Your task to perform on an android device: toggle location history Image 0: 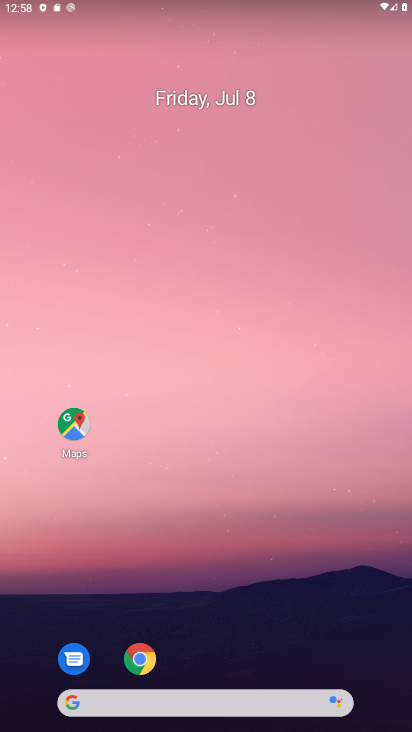
Step 0: drag from (262, 684) to (257, 156)
Your task to perform on an android device: toggle location history Image 1: 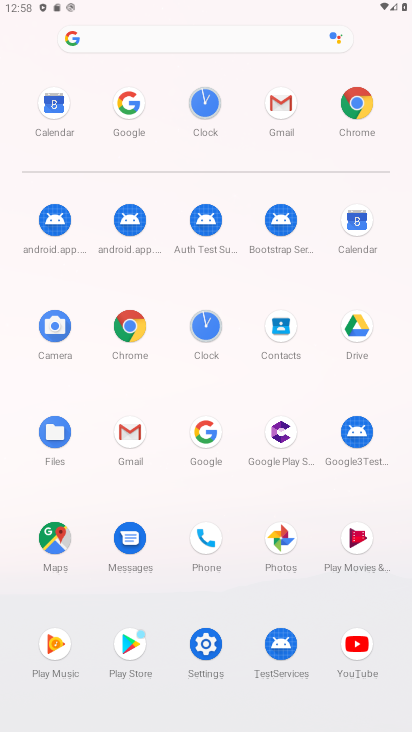
Step 1: click (211, 642)
Your task to perform on an android device: toggle location history Image 2: 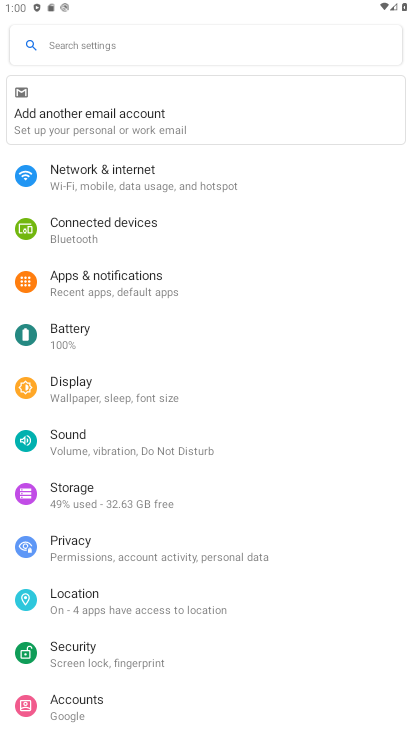
Step 2: drag from (199, 668) to (232, 614)
Your task to perform on an android device: toggle location history Image 3: 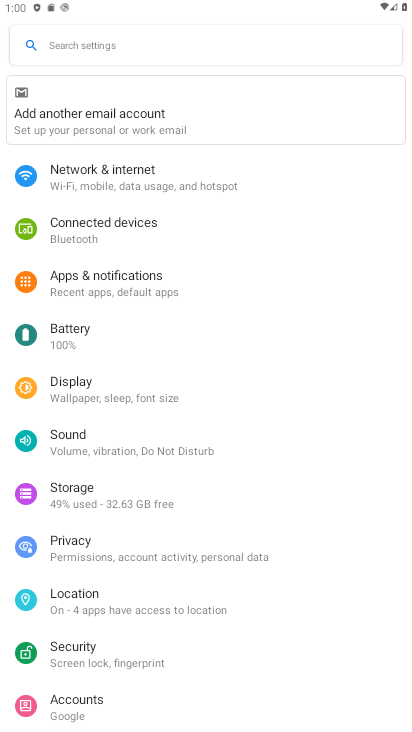
Step 3: click (122, 606)
Your task to perform on an android device: toggle location history Image 4: 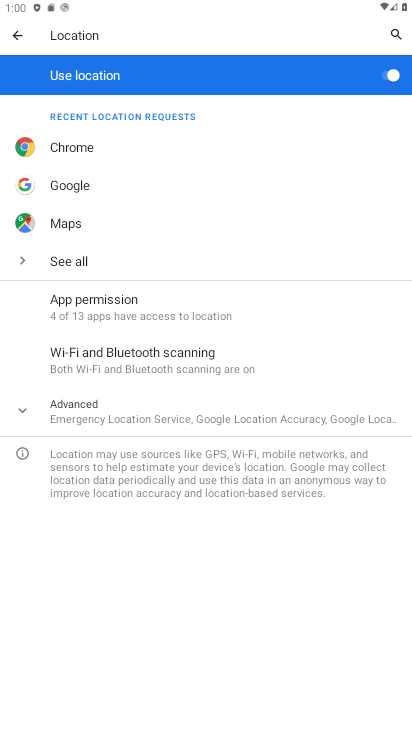
Step 4: click (111, 400)
Your task to perform on an android device: toggle location history Image 5: 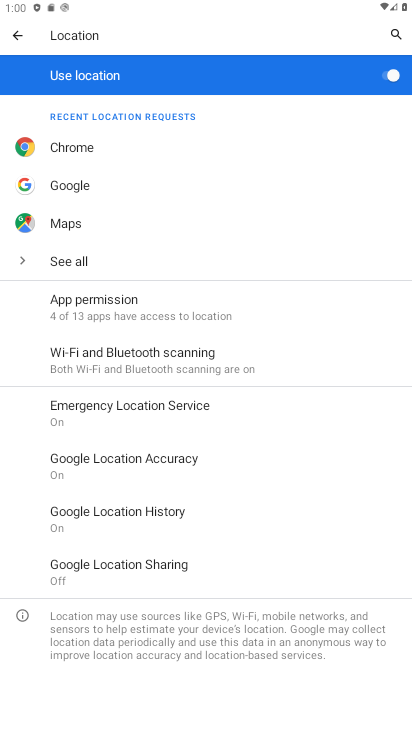
Step 5: drag from (107, 445) to (109, 287)
Your task to perform on an android device: toggle location history Image 6: 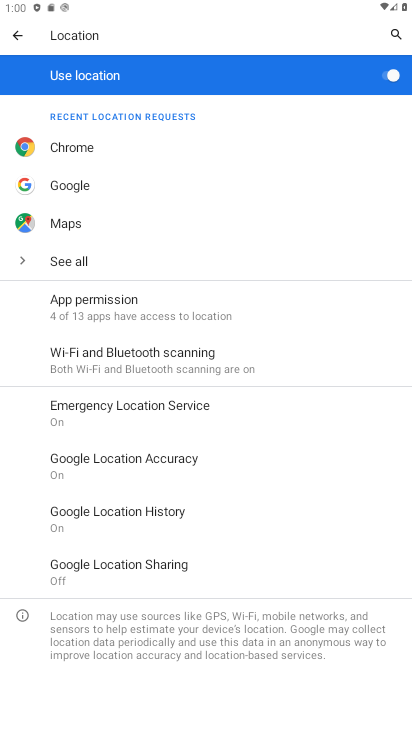
Step 6: click (138, 520)
Your task to perform on an android device: toggle location history Image 7: 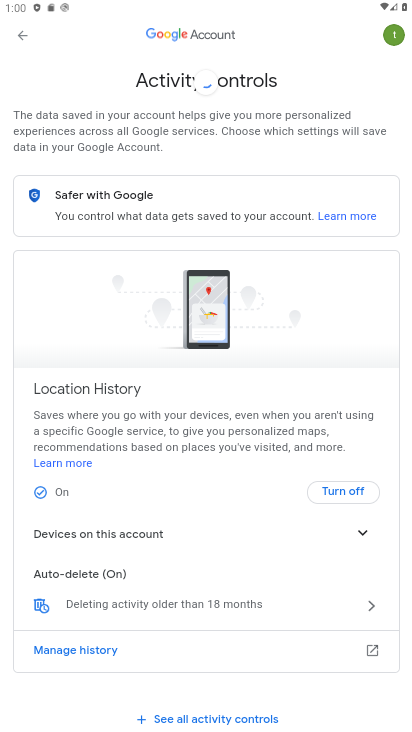
Step 7: click (324, 487)
Your task to perform on an android device: toggle location history Image 8: 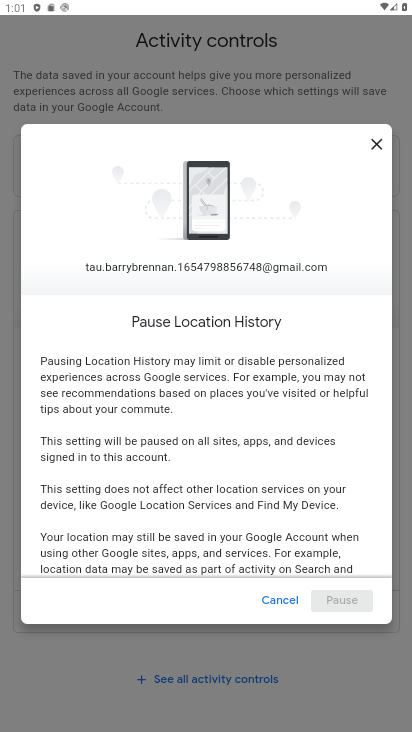
Step 8: drag from (256, 490) to (306, 40)
Your task to perform on an android device: toggle location history Image 9: 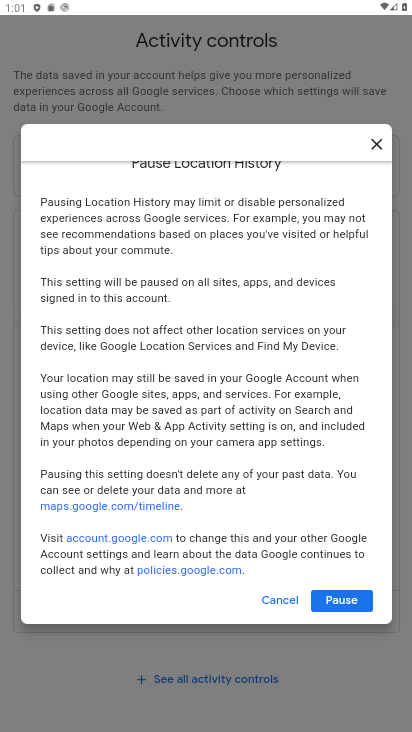
Step 9: click (340, 596)
Your task to perform on an android device: toggle location history Image 10: 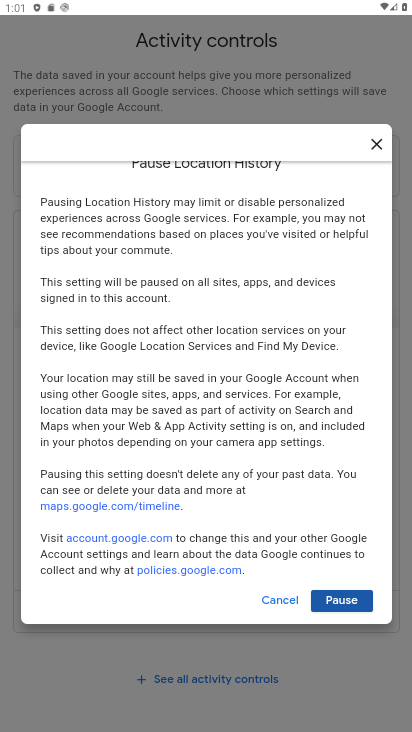
Step 10: click (336, 597)
Your task to perform on an android device: toggle location history Image 11: 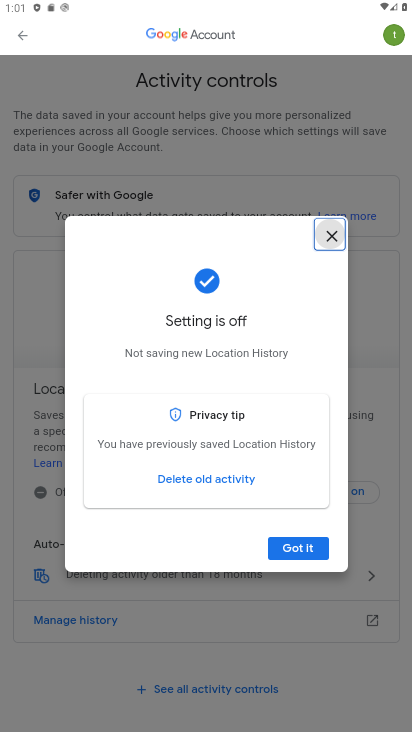
Step 11: click (275, 552)
Your task to perform on an android device: toggle location history Image 12: 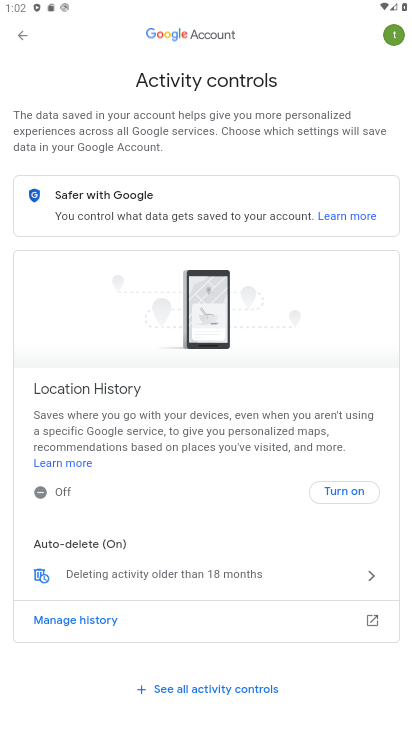
Step 12: task complete